Your task to perform on an android device: Go to Reddit.com Image 0: 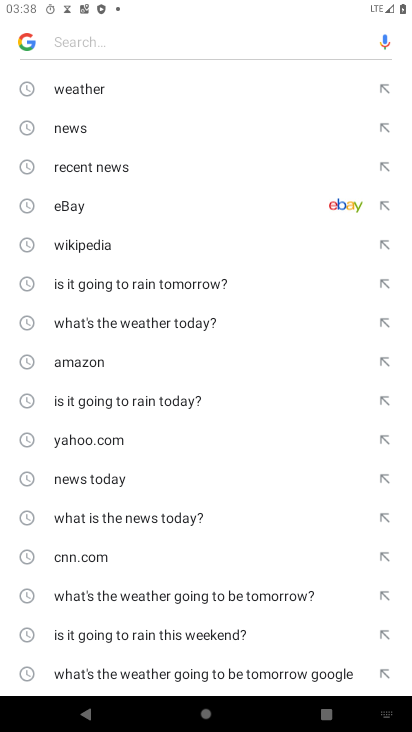
Step 0: press back button
Your task to perform on an android device: Go to Reddit.com Image 1: 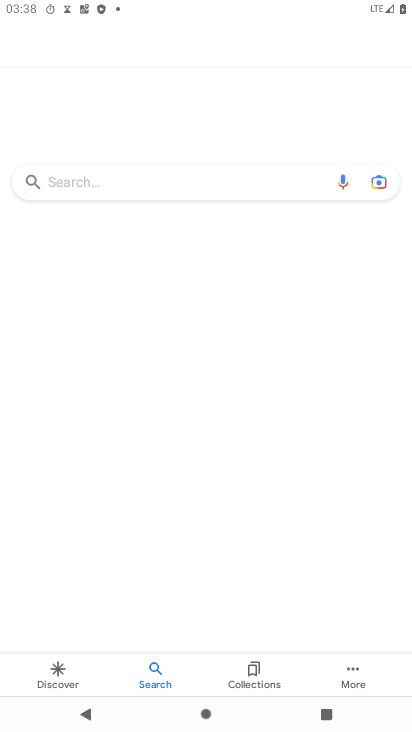
Step 1: press back button
Your task to perform on an android device: Go to Reddit.com Image 2: 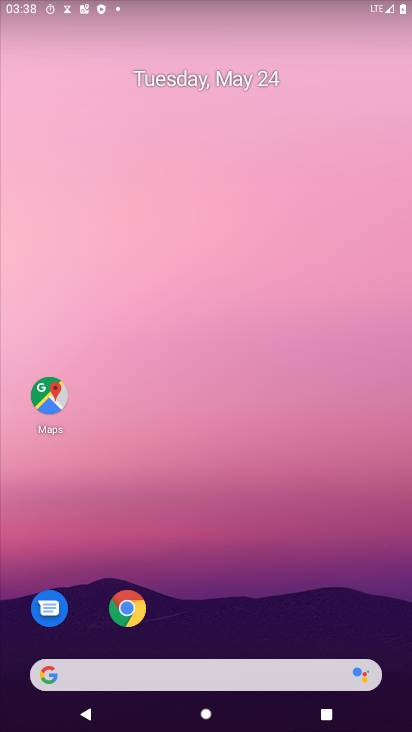
Step 2: drag from (243, 642) to (210, 283)
Your task to perform on an android device: Go to Reddit.com Image 3: 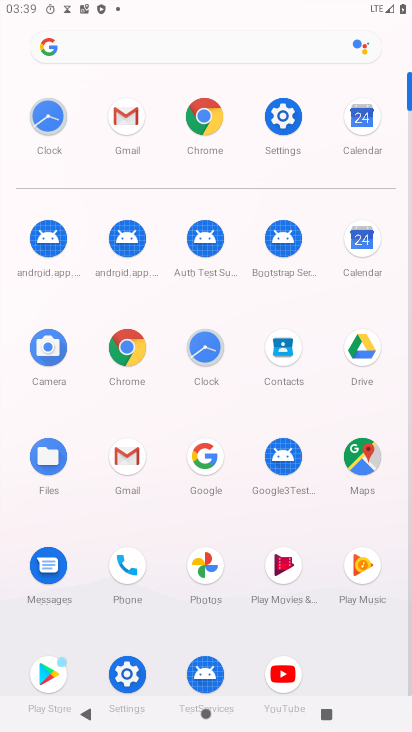
Step 3: click (214, 106)
Your task to perform on an android device: Go to Reddit.com Image 4: 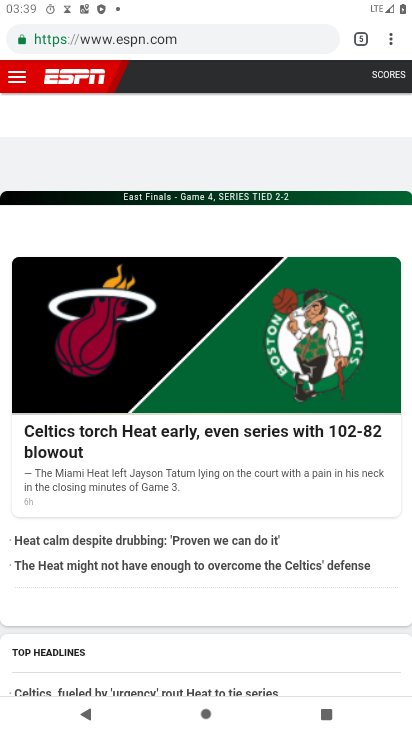
Step 4: click (182, 40)
Your task to perform on an android device: Go to Reddit.com Image 5: 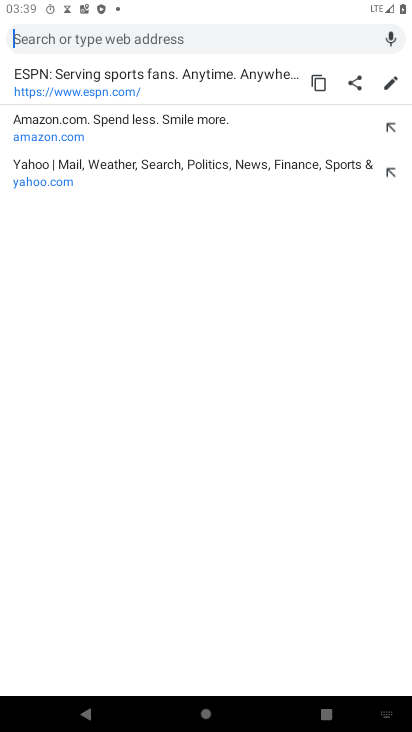
Step 5: type "reddit.com"
Your task to perform on an android device: Go to Reddit.com Image 6: 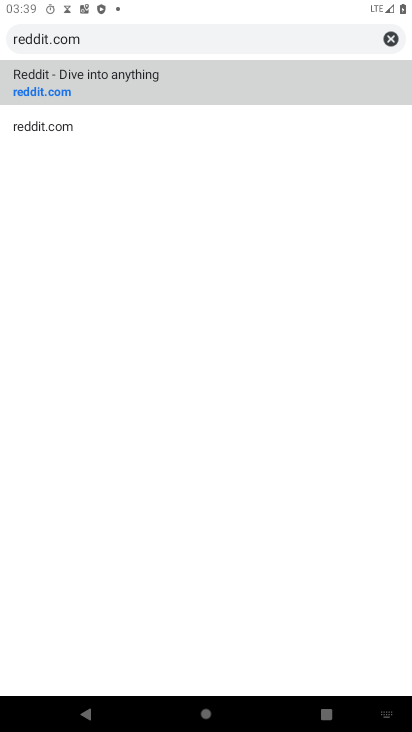
Step 6: click (59, 100)
Your task to perform on an android device: Go to Reddit.com Image 7: 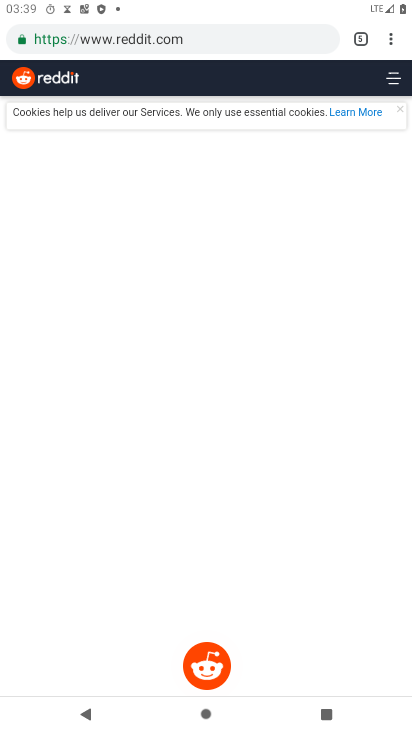
Step 7: task complete